Your task to perform on an android device: turn notification dots on Image 0: 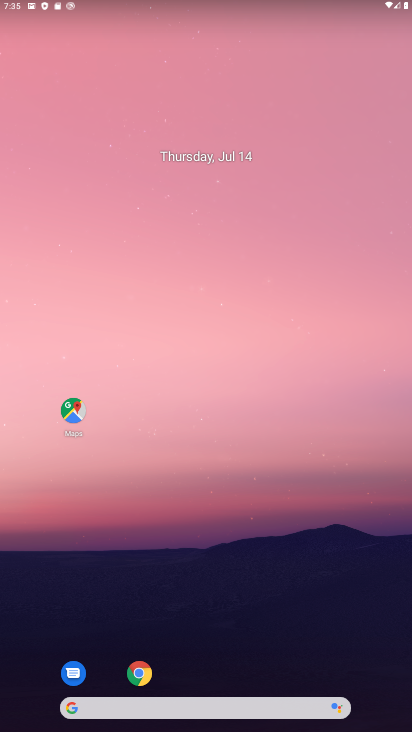
Step 0: drag from (223, 569) to (314, 6)
Your task to perform on an android device: turn notification dots on Image 1: 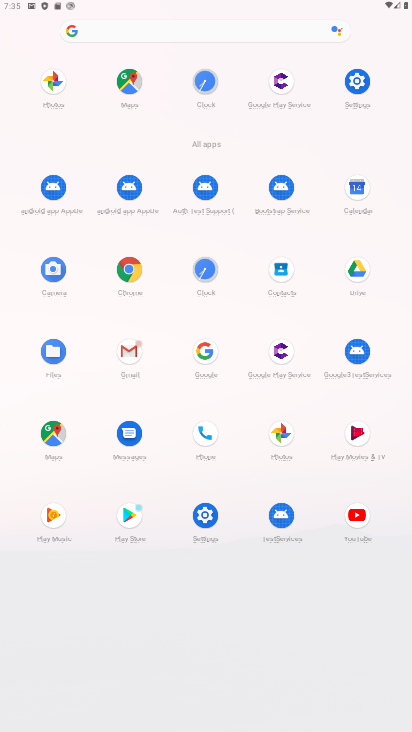
Step 1: click (355, 80)
Your task to perform on an android device: turn notification dots on Image 2: 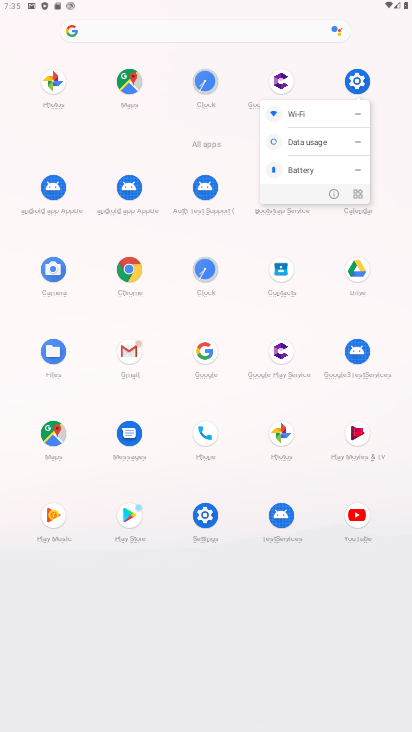
Step 2: click (332, 191)
Your task to perform on an android device: turn notification dots on Image 3: 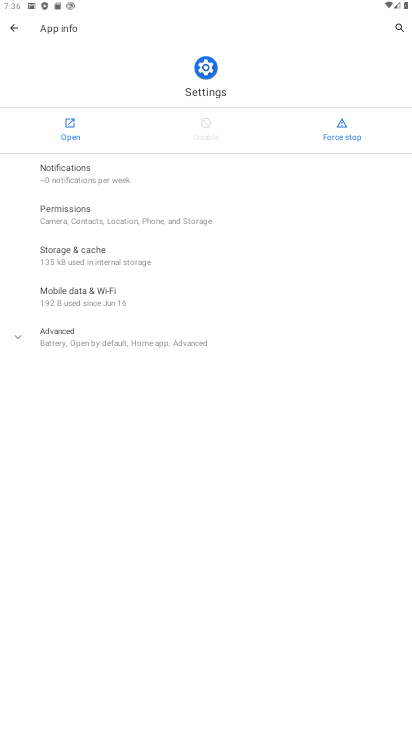
Step 3: click (81, 132)
Your task to perform on an android device: turn notification dots on Image 4: 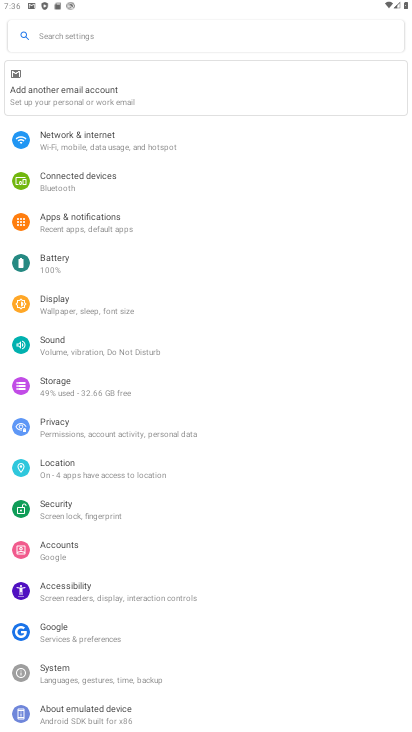
Step 4: click (154, 232)
Your task to perform on an android device: turn notification dots on Image 5: 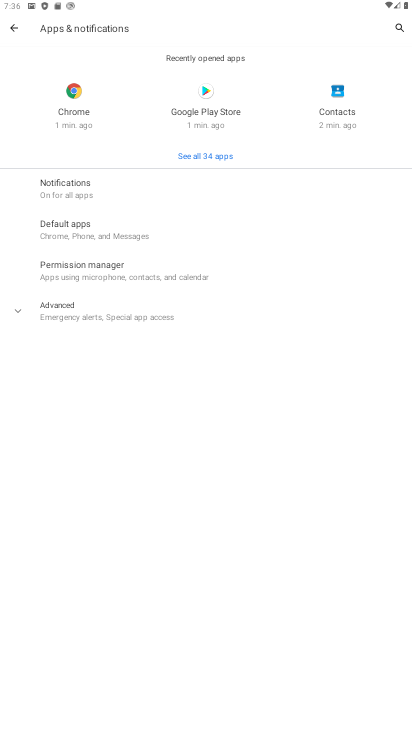
Step 5: click (121, 197)
Your task to perform on an android device: turn notification dots on Image 6: 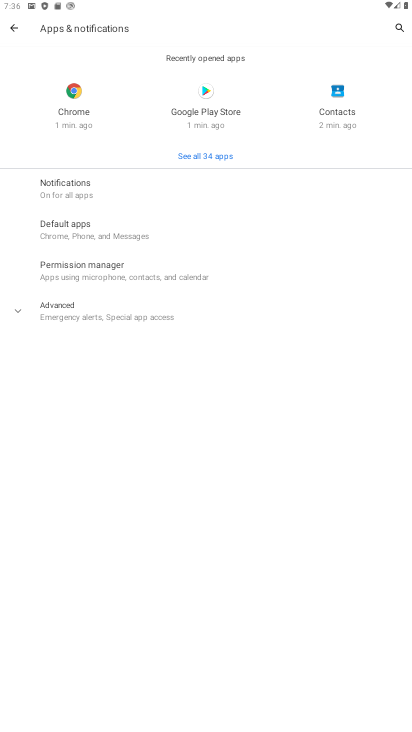
Step 6: click (121, 197)
Your task to perform on an android device: turn notification dots on Image 7: 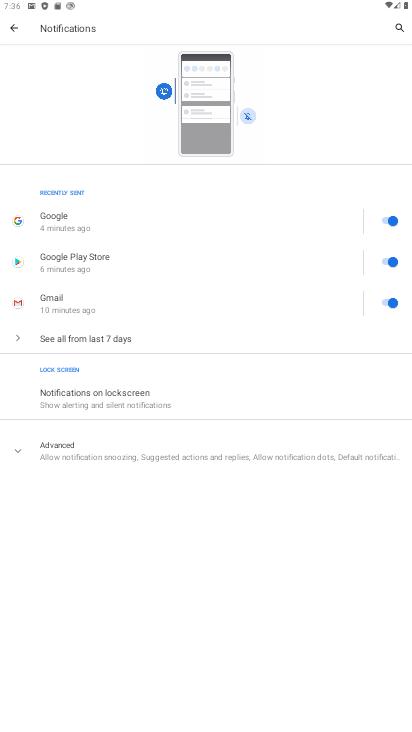
Step 7: click (103, 446)
Your task to perform on an android device: turn notification dots on Image 8: 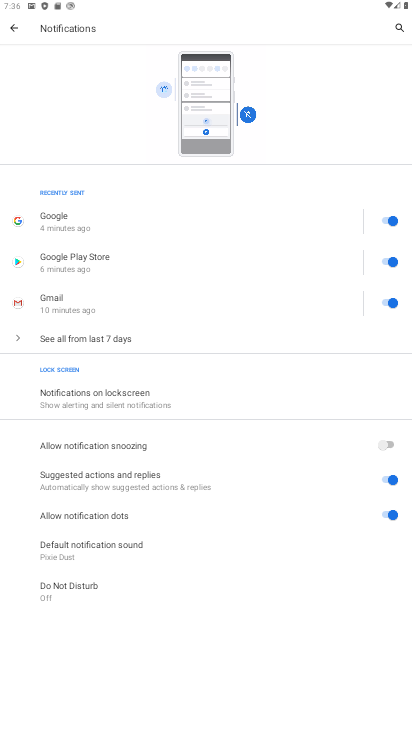
Step 8: drag from (191, 552) to (214, 156)
Your task to perform on an android device: turn notification dots on Image 9: 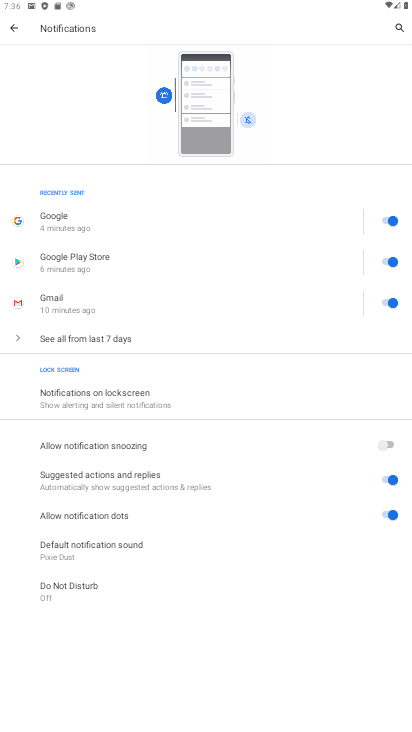
Step 9: click (386, 511)
Your task to perform on an android device: turn notification dots on Image 10: 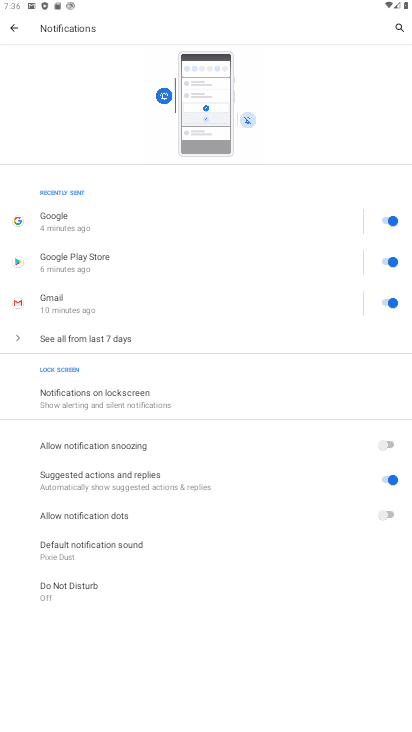
Step 10: click (361, 516)
Your task to perform on an android device: turn notification dots on Image 11: 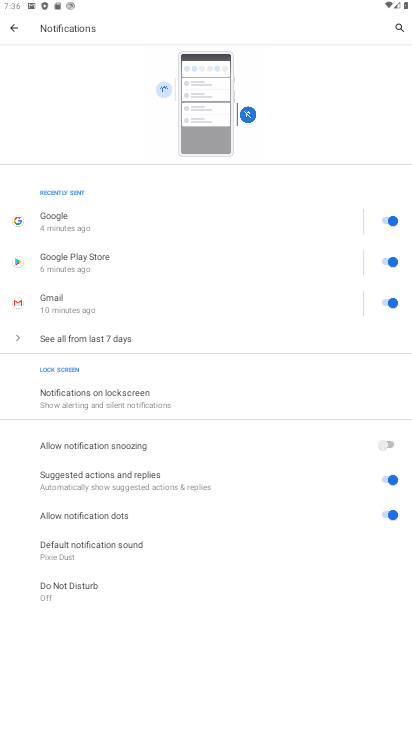
Step 11: task complete